Your task to perform on an android device: turn off priority inbox in the gmail app Image 0: 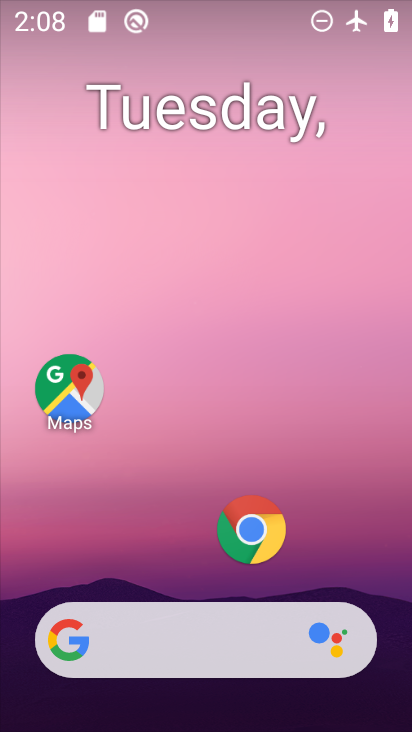
Step 0: drag from (216, 435) to (297, 11)
Your task to perform on an android device: turn off priority inbox in the gmail app Image 1: 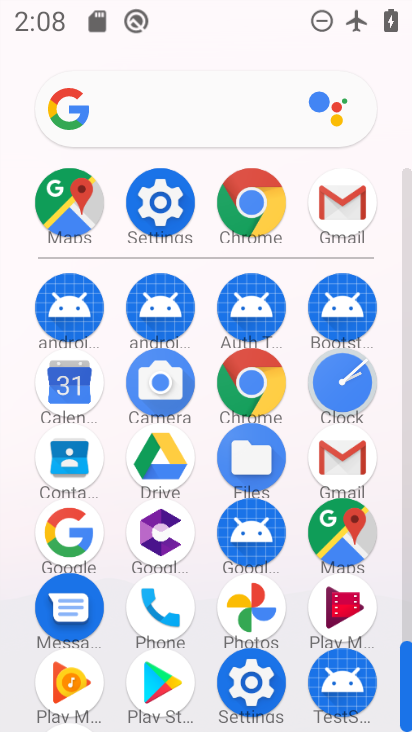
Step 1: click (352, 317)
Your task to perform on an android device: turn off priority inbox in the gmail app Image 2: 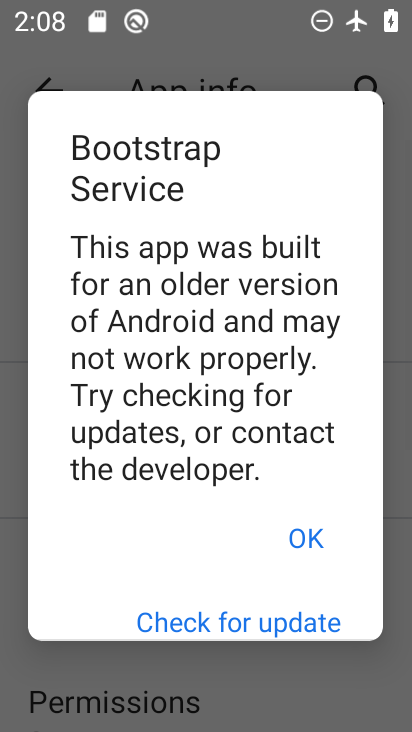
Step 2: click (301, 525)
Your task to perform on an android device: turn off priority inbox in the gmail app Image 3: 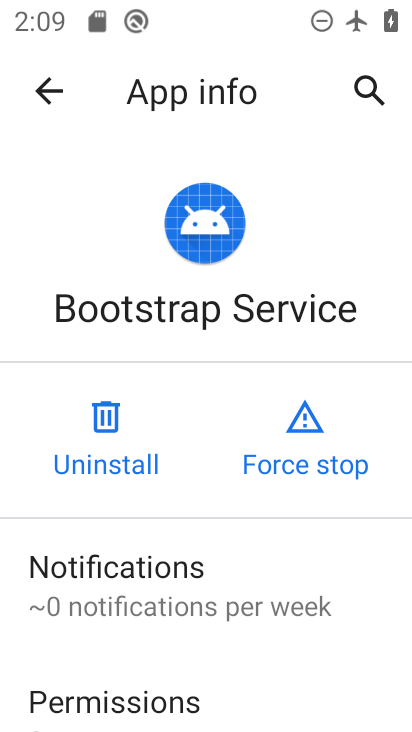
Step 3: click (57, 90)
Your task to perform on an android device: turn off priority inbox in the gmail app Image 4: 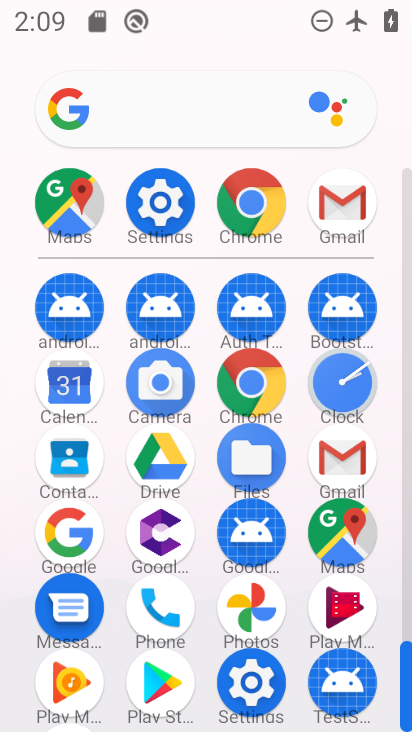
Step 4: click (328, 204)
Your task to perform on an android device: turn off priority inbox in the gmail app Image 5: 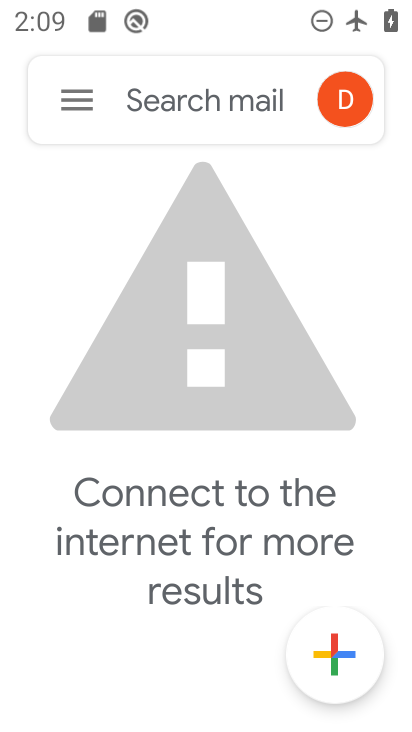
Step 5: click (84, 107)
Your task to perform on an android device: turn off priority inbox in the gmail app Image 6: 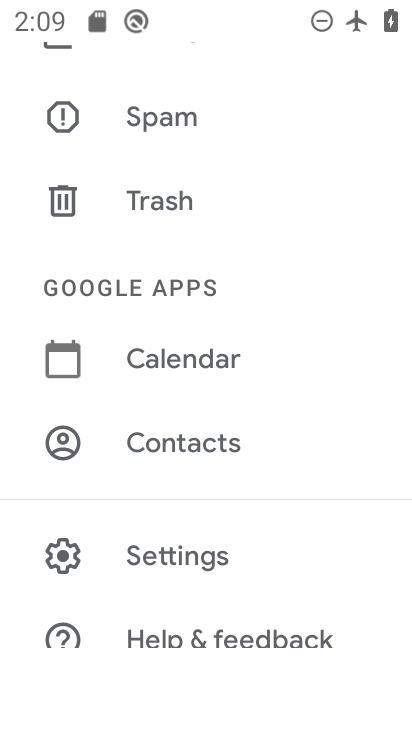
Step 6: click (137, 548)
Your task to perform on an android device: turn off priority inbox in the gmail app Image 7: 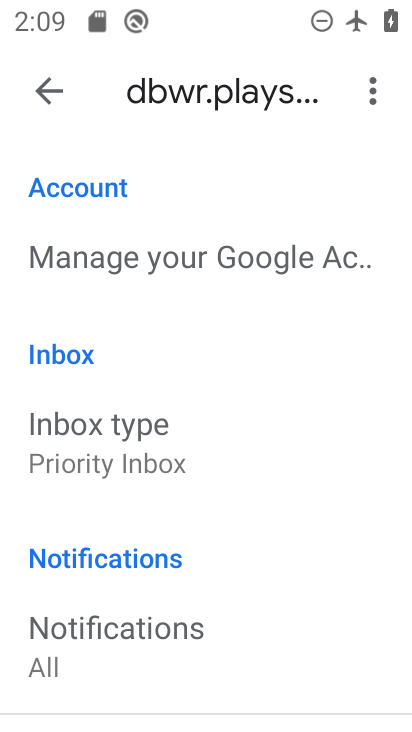
Step 7: click (120, 443)
Your task to perform on an android device: turn off priority inbox in the gmail app Image 8: 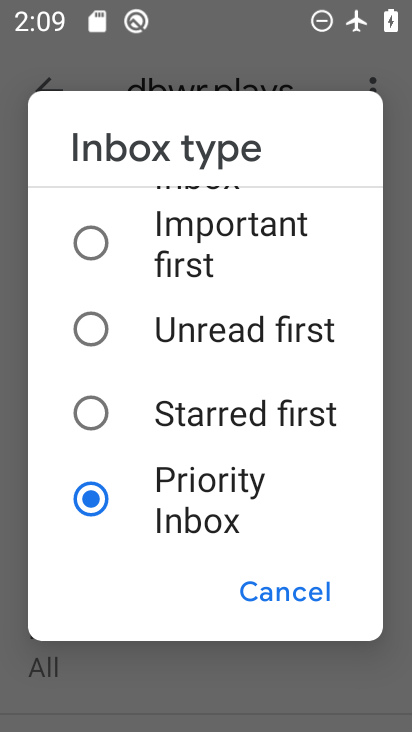
Step 8: click (165, 204)
Your task to perform on an android device: turn off priority inbox in the gmail app Image 9: 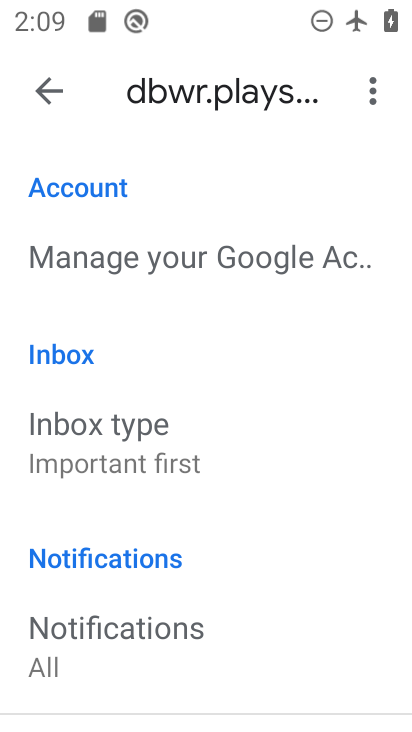
Step 9: task complete